Your task to perform on an android device: Go to wifi settings Image 0: 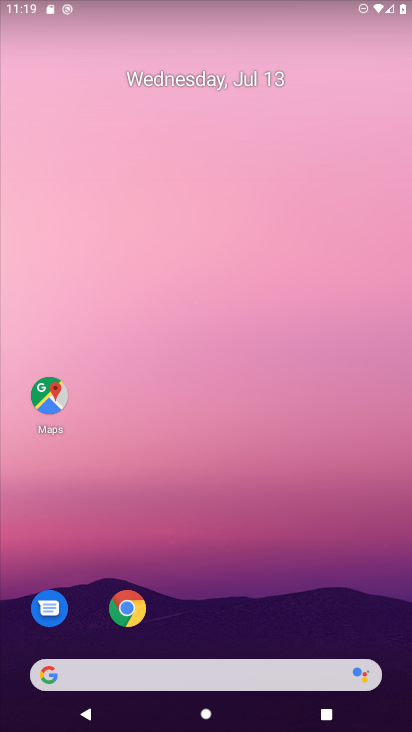
Step 0: drag from (272, 612) to (278, 274)
Your task to perform on an android device: Go to wifi settings Image 1: 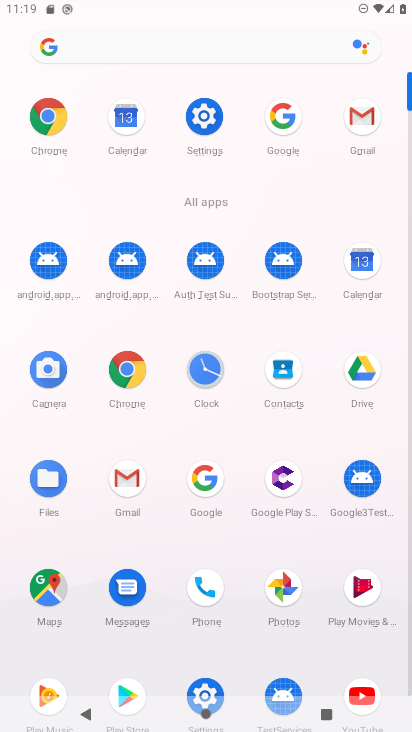
Step 1: click (201, 115)
Your task to perform on an android device: Go to wifi settings Image 2: 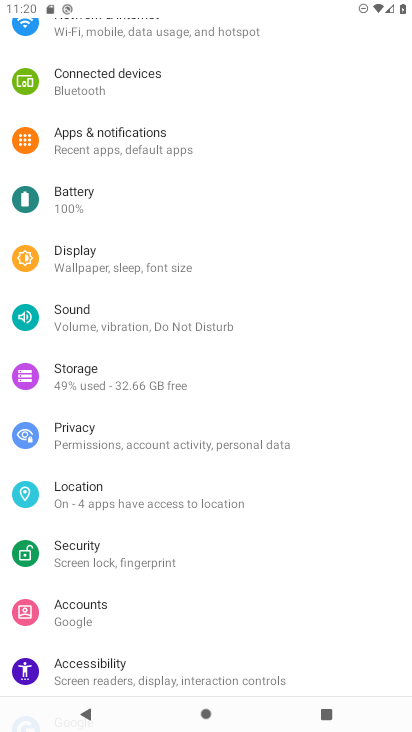
Step 2: click (113, 29)
Your task to perform on an android device: Go to wifi settings Image 3: 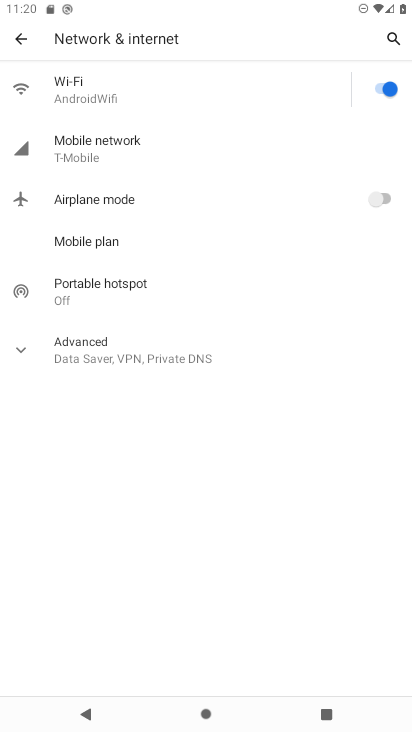
Step 3: click (79, 96)
Your task to perform on an android device: Go to wifi settings Image 4: 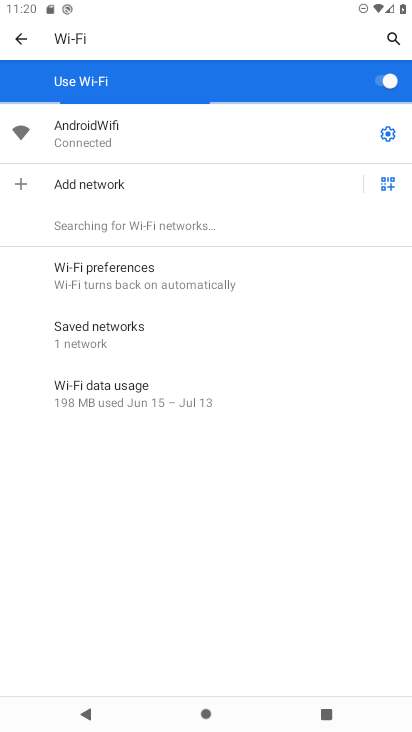
Step 4: task complete